Your task to perform on an android device: Search for seafood restaurants on Google Maps Image 0: 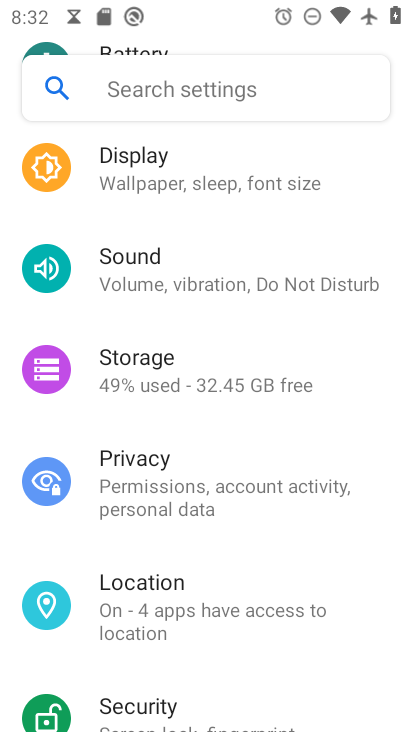
Step 0: press home button
Your task to perform on an android device: Search for seafood restaurants on Google Maps Image 1: 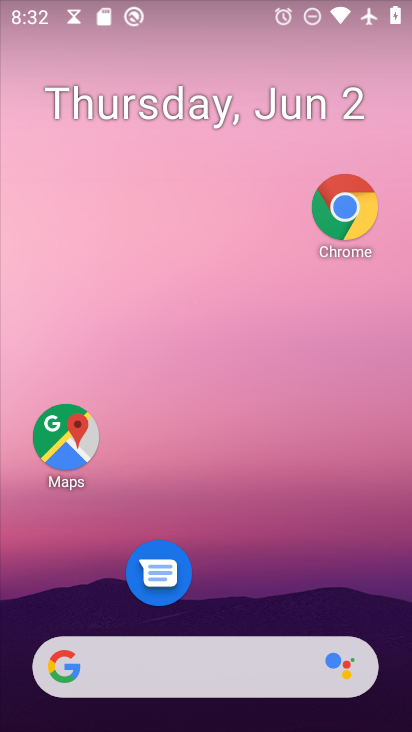
Step 1: click (69, 449)
Your task to perform on an android device: Search for seafood restaurants on Google Maps Image 2: 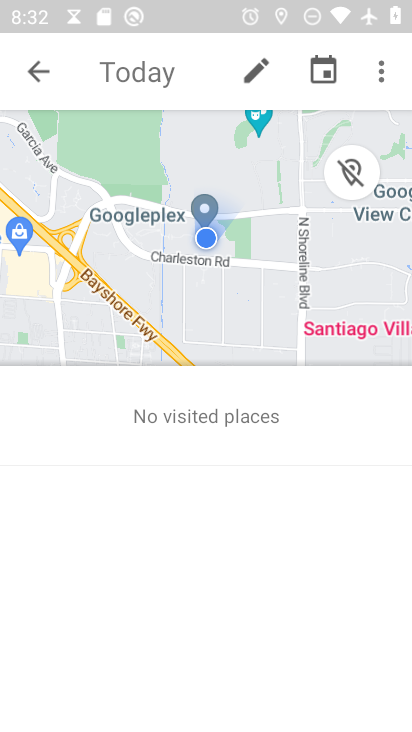
Step 2: click (33, 70)
Your task to perform on an android device: Search for seafood restaurants on Google Maps Image 3: 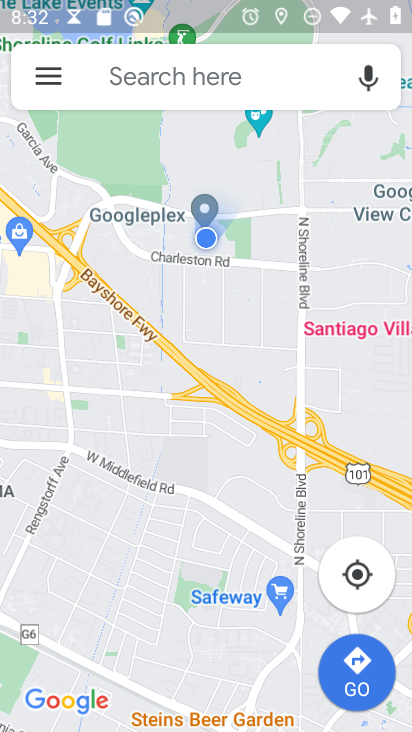
Step 3: click (168, 78)
Your task to perform on an android device: Search for seafood restaurants on Google Maps Image 4: 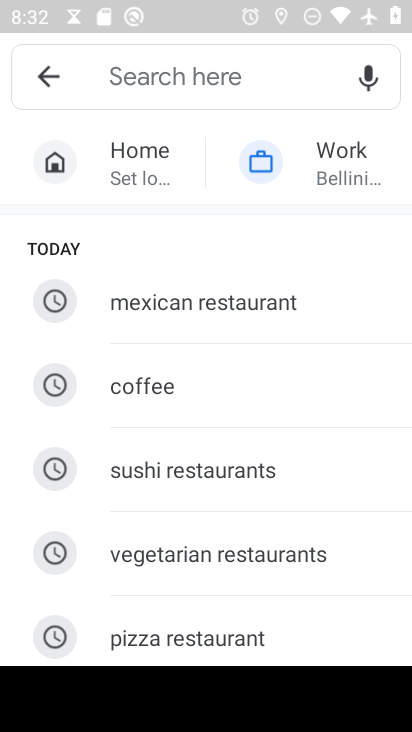
Step 4: drag from (223, 609) to (271, 266)
Your task to perform on an android device: Search for seafood restaurants on Google Maps Image 5: 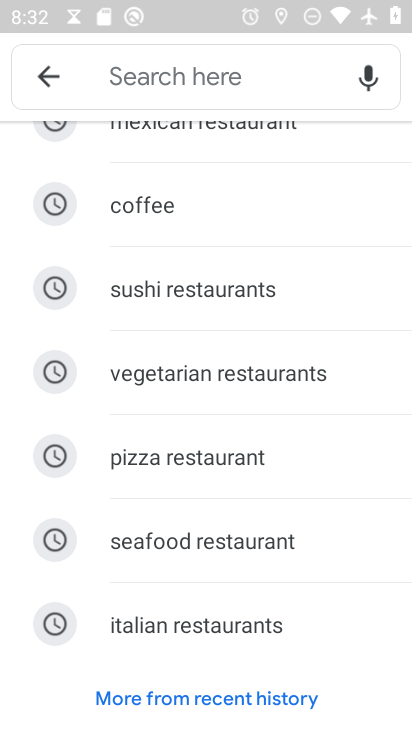
Step 5: click (218, 544)
Your task to perform on an android device: Search for seafood restaurants on Google Maps Image 6: 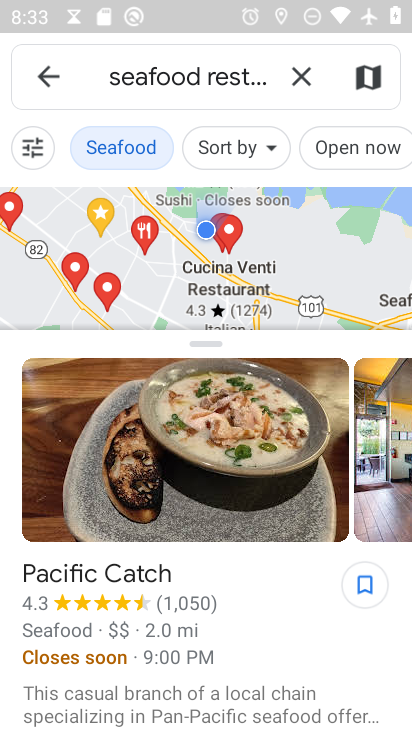
Step 6: task complete